Your task to perform on an android device: Open the stopwatch Image 0: 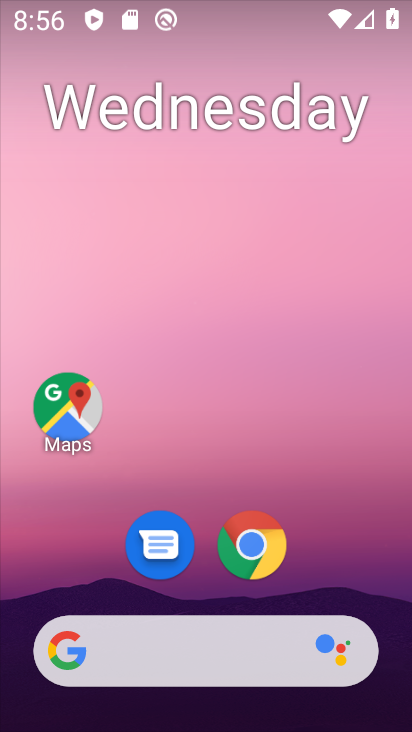
Step 0: drag from (388, 595) to (308, 161)
Your task to perform on an android device: Open the stopwatch Image 1: 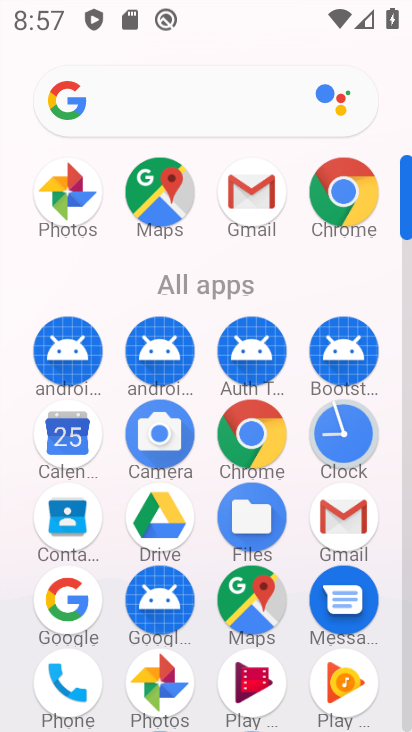
Step 1: click (358, 446)
Your task to perform on an android device: Open the stopwatch Image 2: 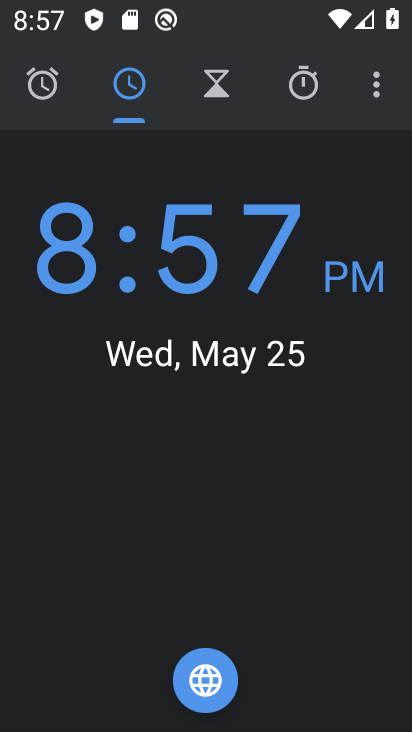
Step 2: click (298, 88)
Your task to perform on an android device: Open the stopwatch Image 3: 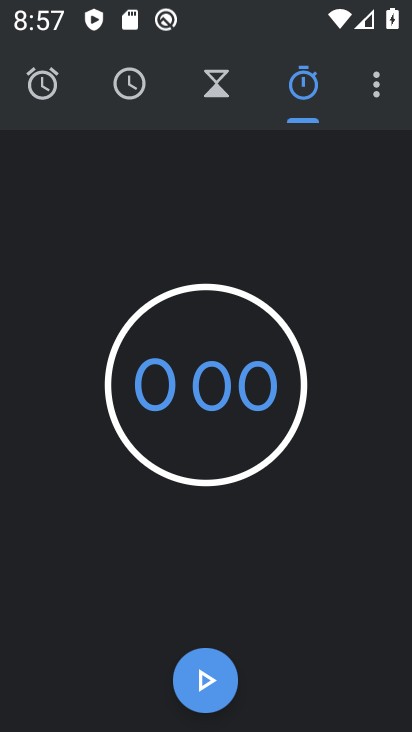
Step 3: task complete